Your task to perform on an android device: create a new album in the google photos Image 0: 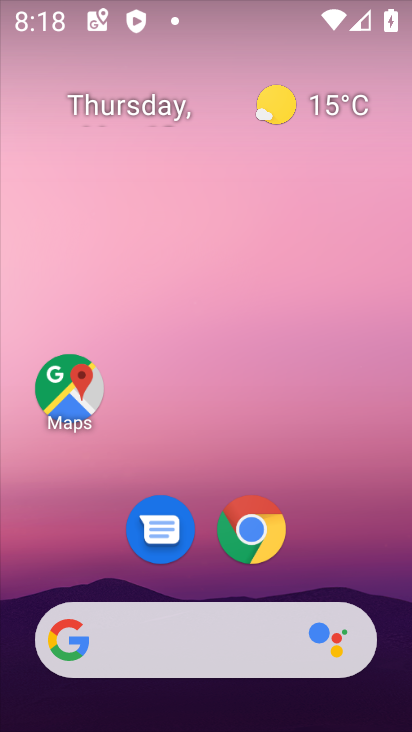
Step 0: drag from (129, 693) to (283, 15)
Your task to perform on an android device: create a new album in the google photos Image 1: 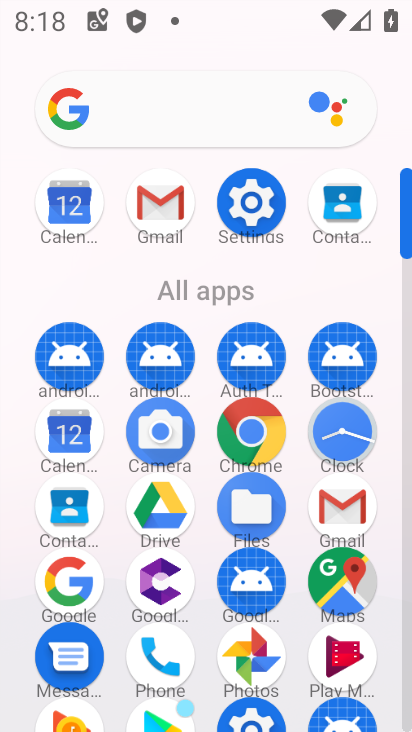
Step 1: click (245, 636)
Your task to perform on an android device: create a new album in the google photos Image 2: 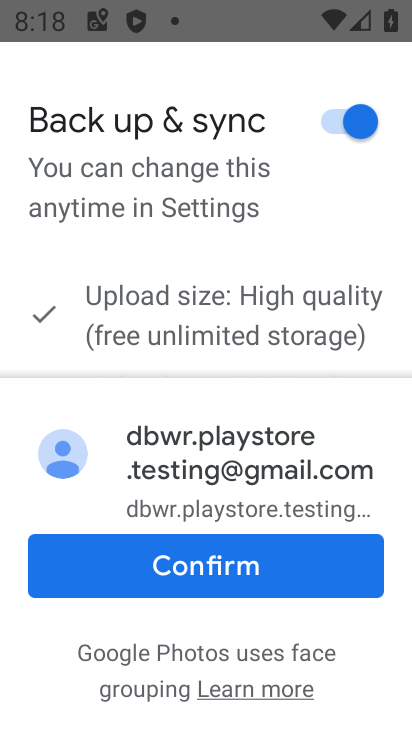
Step 2: press back button
Your task to perform on an android device: create a new album in the google photos Image 3: 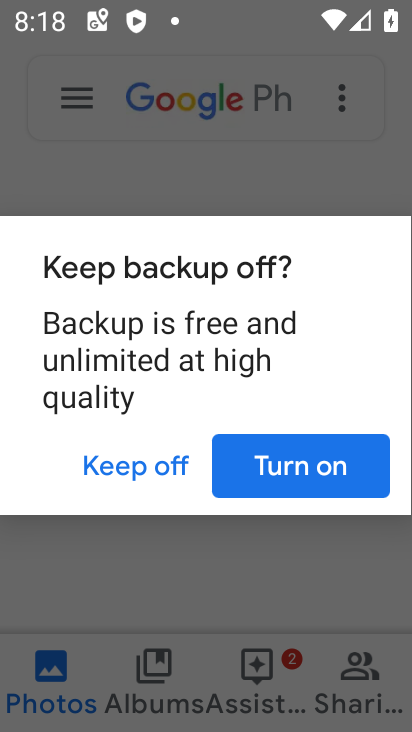
Step 3: click (110, 467)
Your task to perform on an android device: create a new album in the google photos Image 4: 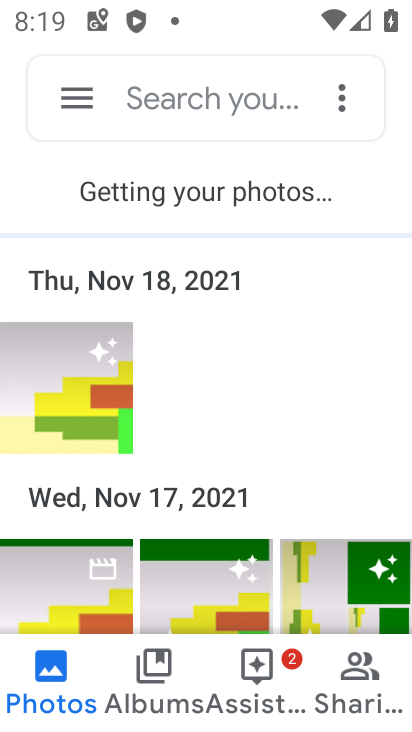
Step 4: click (52, 391)
Your task to perform on an android device: create a new album in the google photos Image 5: 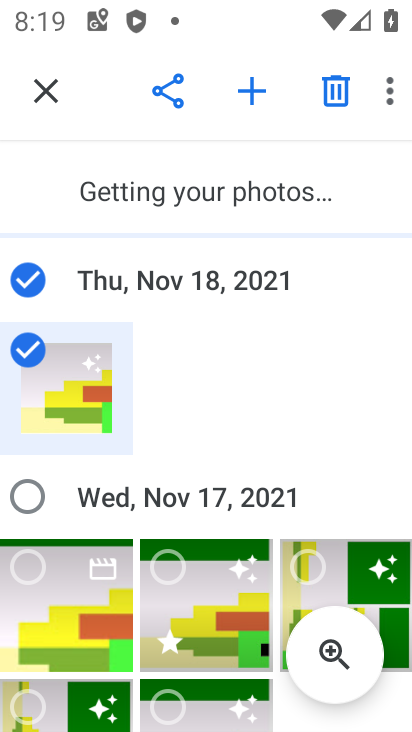
Step 5: click (252, 75)
Your task to perform on an android device: create a new album in the google photos Image 6: 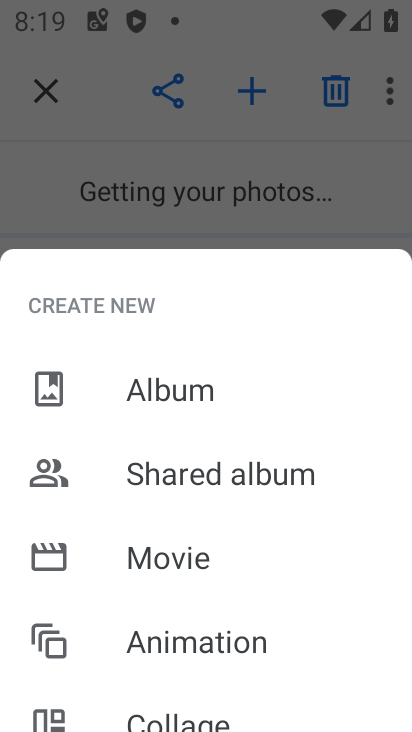
Step 6: click (203, 383)
Your task to perform on an android device: create a new album in the google photos Image 7: 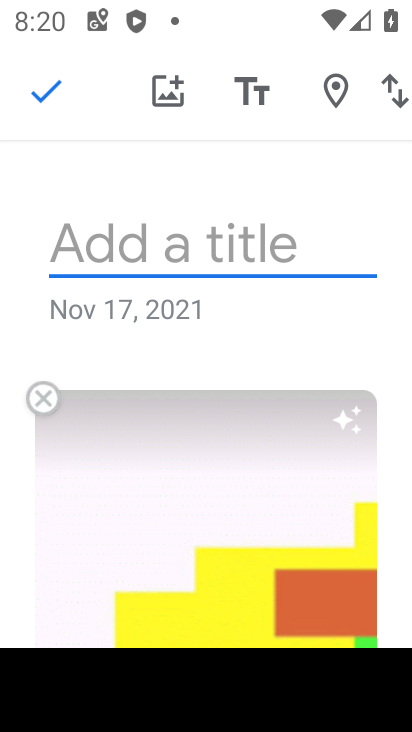
Step 7: type "hgcfcj"
Your task to perform on an android device: create a new album in the google photos Image 8: 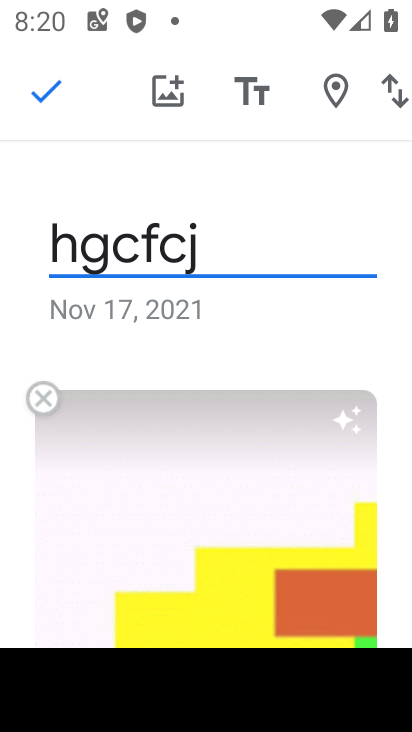
Step 8: click (34, 95)
Your task to perform on an android device: create a new album in the google photos Image 9: 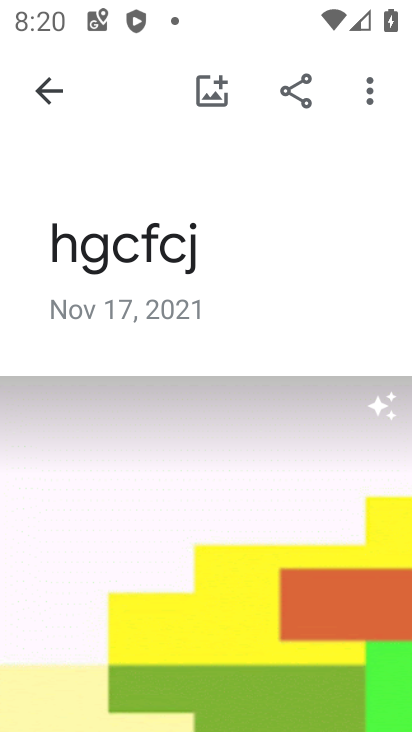
Step 9: task complete